Your task to perform on an android device: Open the stopwatch Image 0: 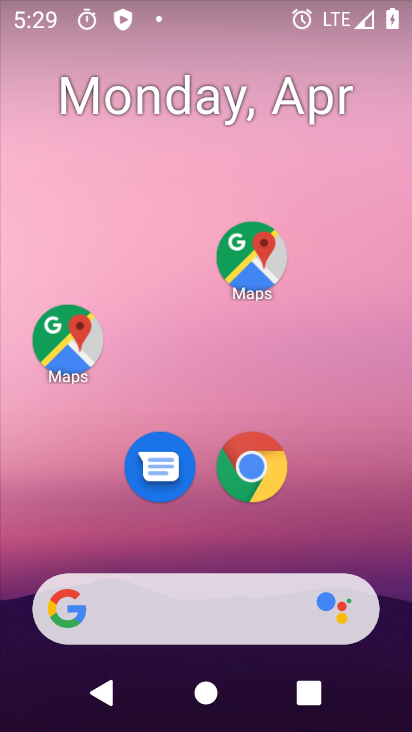
Step 0: drag from (330, 577) to (308, 28)
Your task to perform on an android device: Open the stopwatch Image 1: 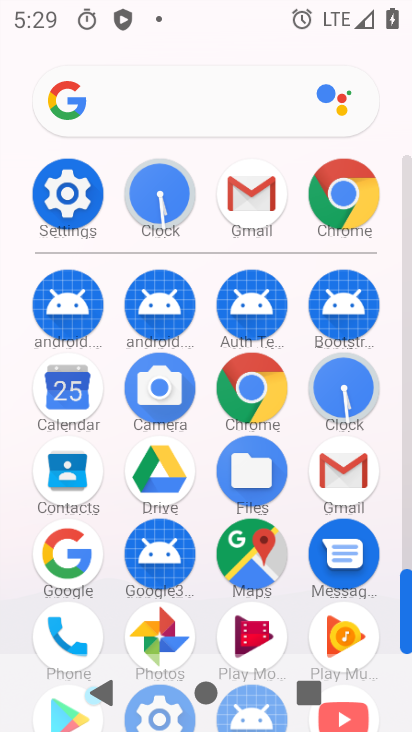
Step 1: click (357, 398)
Your task to perform on an android device: Open the stopwatch Image 2: 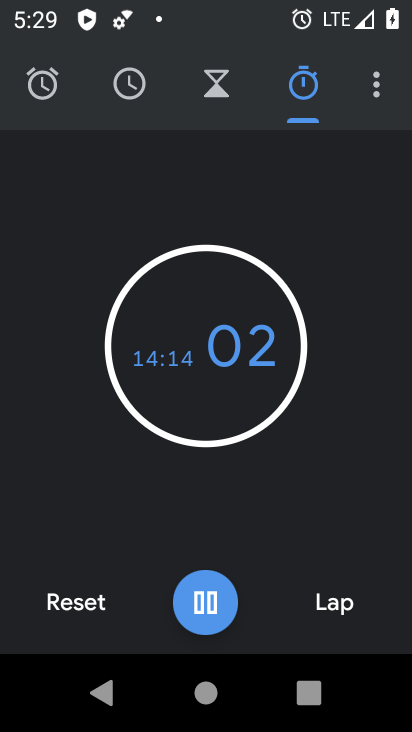
Step 2: click (92, 600)
Your task to perform on an android device: Open the stopwatch Image 3: 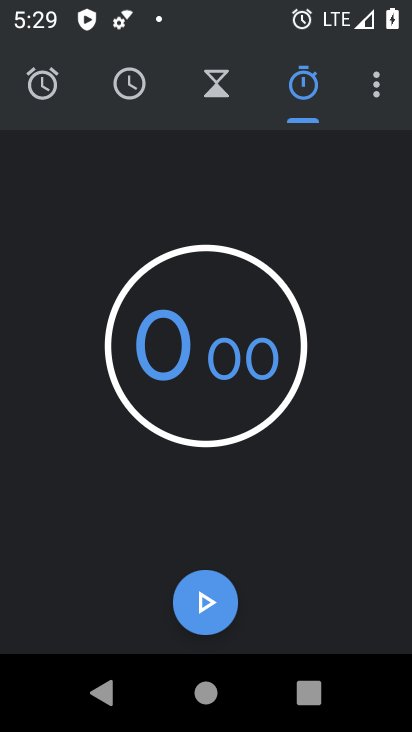
Step 3: click (210, 595)
Your task to perform on an android device: Open the stopwatch Image 4: 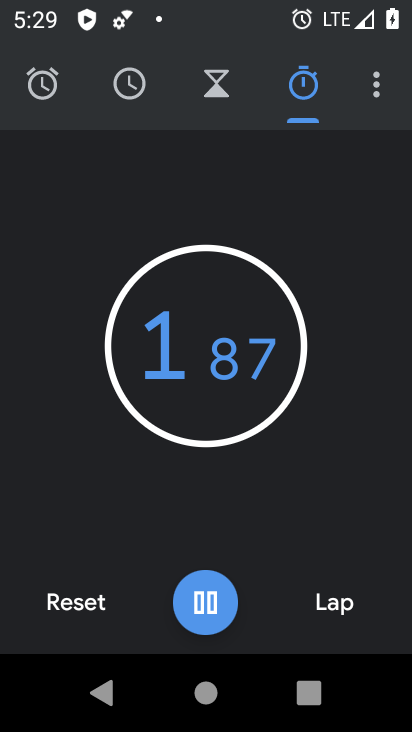
Step 4: task complete